Your task to perform on an android device: turn on showing notifications on the lock screen Image 0: 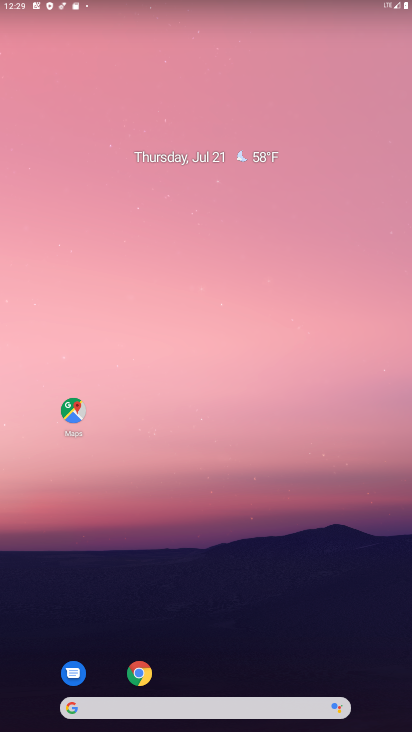
Step 0: drag from (193, 611) to (368, 394)
Your task to perform on an android device: turn on showing notifications on the lock screen Image 1: 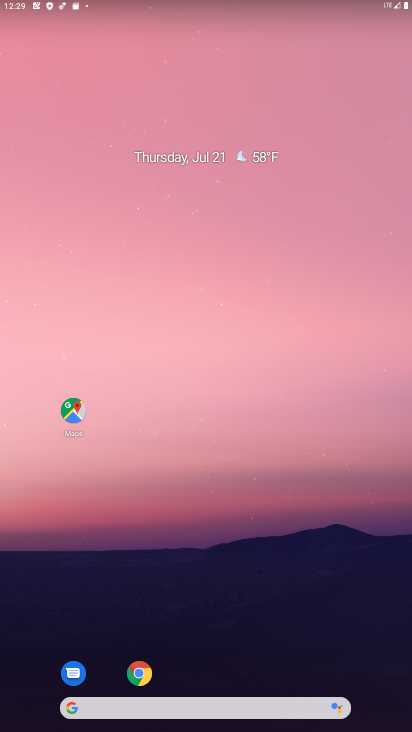
Step 1: drag from (219, 556) to (323, 154)
Your task to perform on an android device: turn on showing notifications on the lock screen Image 2: 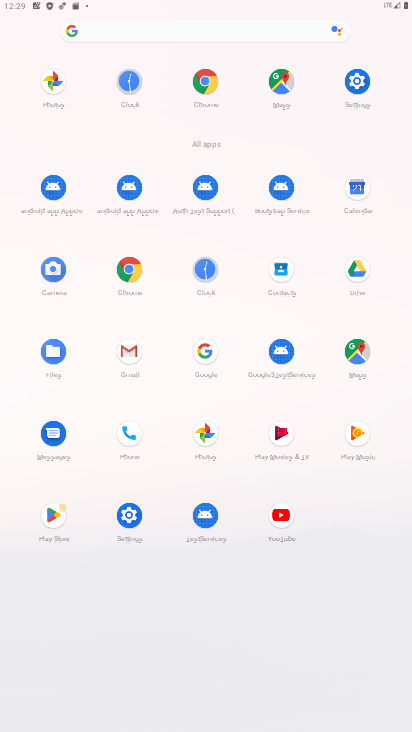
Step 2: click (347, 85)
Your task to perform on an android device: turn on showing notifications on the lock screen Image 3: 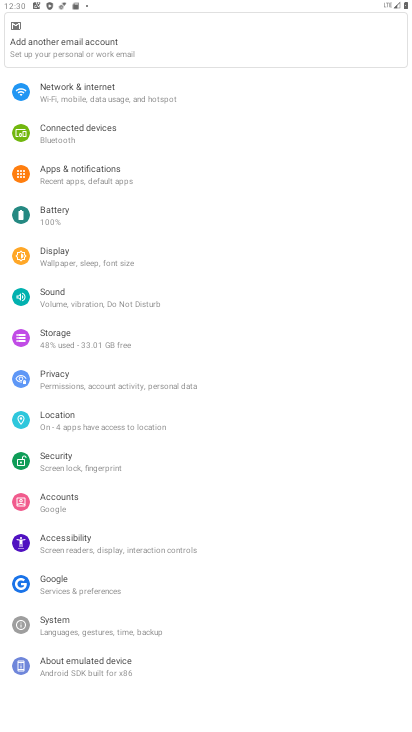
Step 3: click (61, 78)
Your task to perform on an android device: turn on showing notifications on the lock screen Image 4: 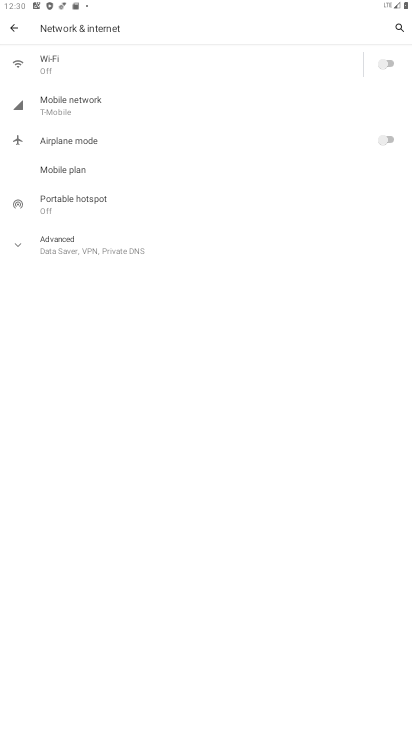
Step 4: click (14, 17)
Your task to perform on an android device: turn on showing notifications on the lock screen Image 5: 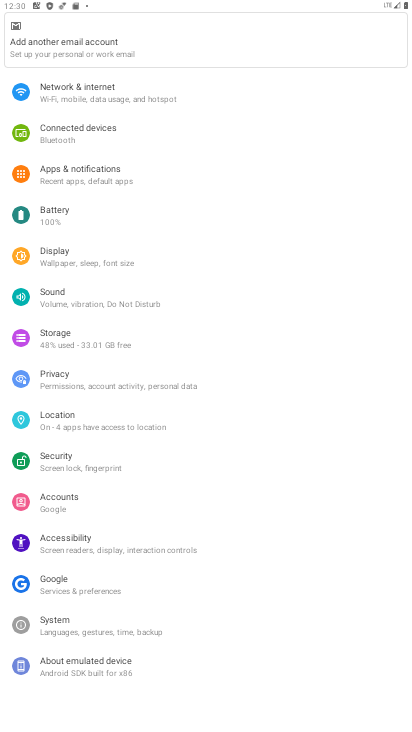
Step 5: click (109, 179)
Your task to perform on an android device: turn on showing notifications on the lock screen Image 6: 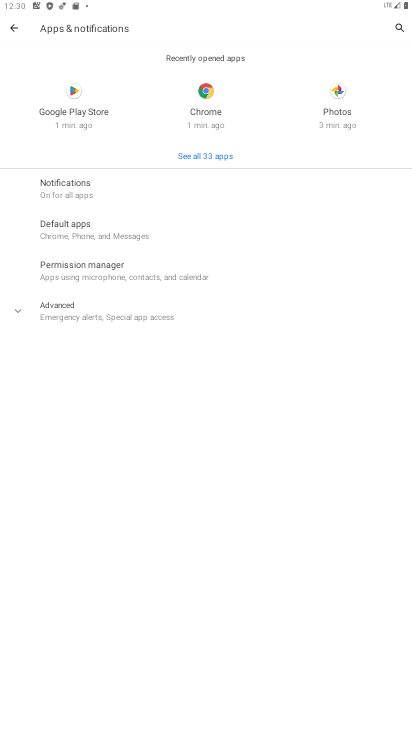
Step 6: click (100, 186)
Your task to perform on an android device: turn on showing notifications on the lock screen Image 7: 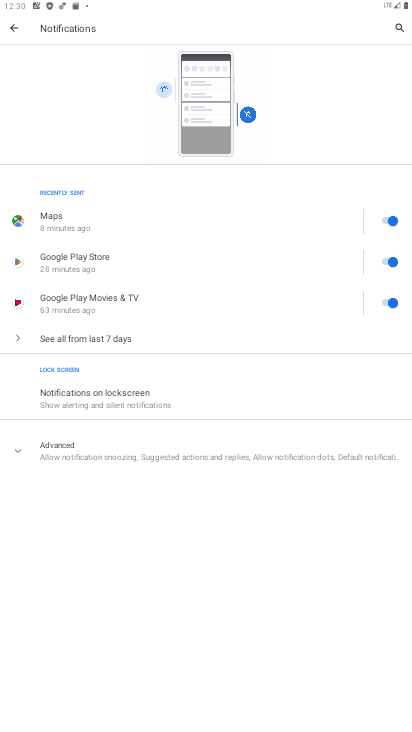
Step 7: click (140, 392)
Your task to perform on an android device: turn on showing notifications on the lock screen Image 8: 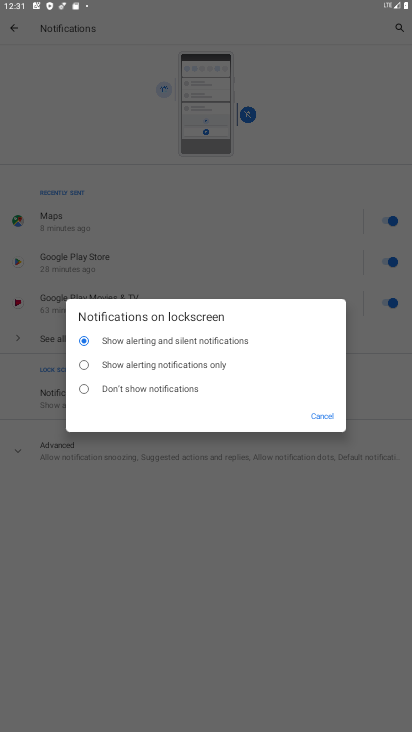
Step 8: task complete